Your task to perform on an android device: What's on my calendar tomorrow? Image 0: 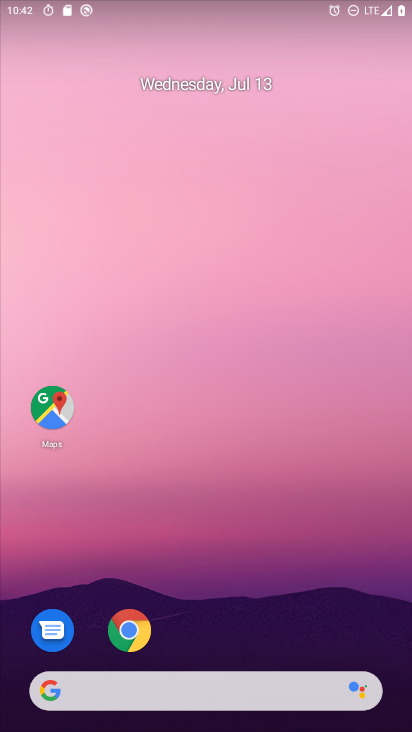
Step 0: drag from (299, 456) to (156, 29)
Your task to perform on an android device: What's on my calendar tomorrow? Image 1: 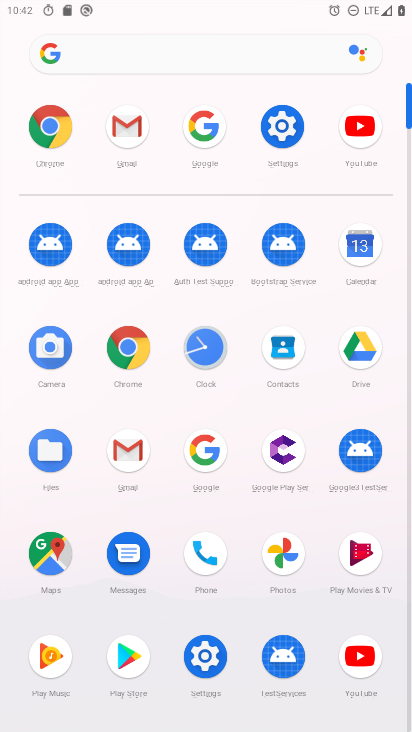
Step 1: click (196, 659)
Your task to perform on an android device: What's on my calendar tomorrow? Image 2: 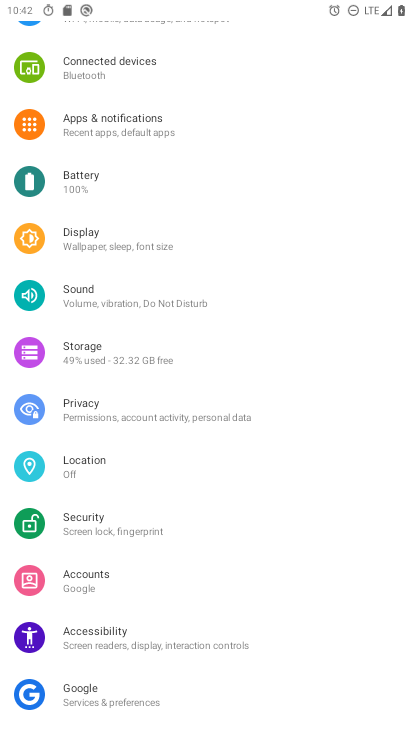
Step 2: press home button
Your task to perform on an android device: What's on my calendar tomorrow? Image 3: 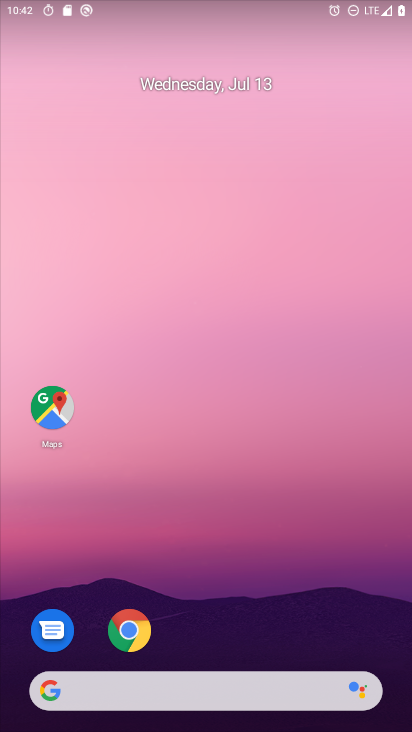
Step 3: drag from (393, 648) to (265, 123)
Your task to perform on an android device: What's on my calendar tomorrow? Image 4: 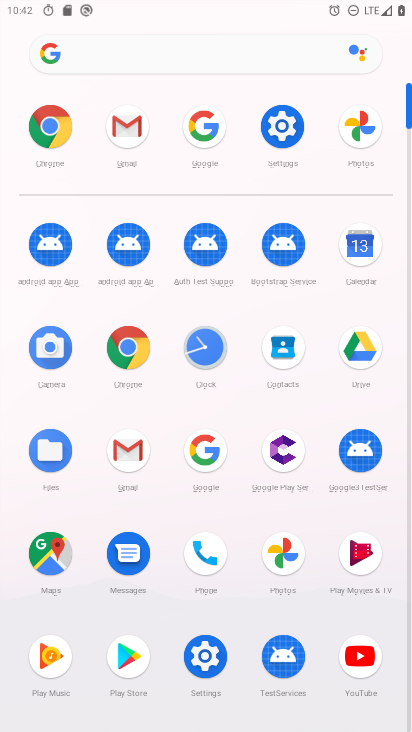
Step 4: click (348, 244)
Your task to perform on an android device: What's on my calendar tomorrow? Image 5: 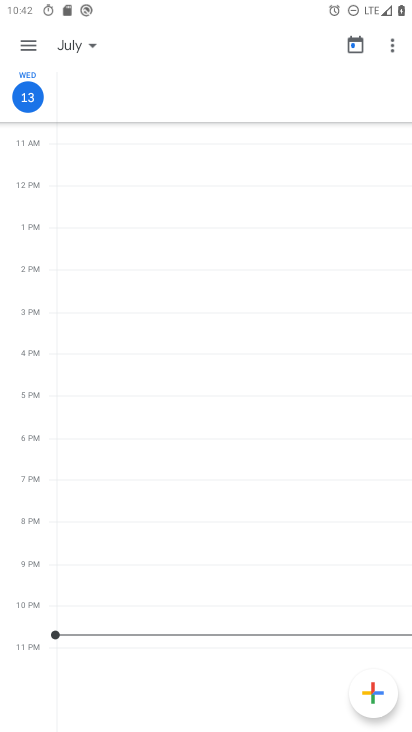
Step 5: click (72, 42)
Your task to perform on an android device: What's on my calendar tomorrow? Image 6: 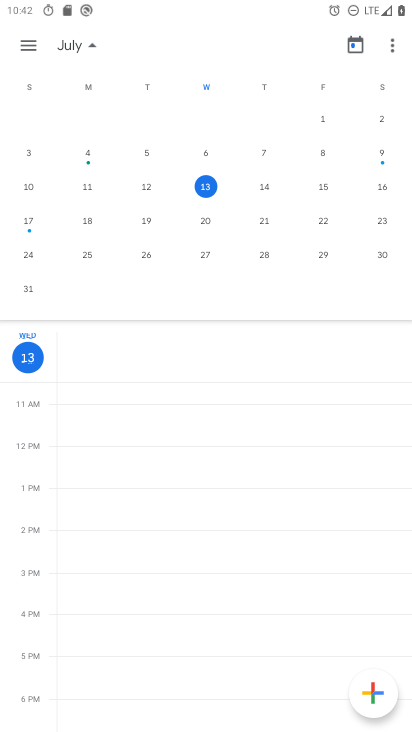
Step 6: click (323, 190)
Your task to perform on an android device: What's on my calendar tomorrow? Image 7: 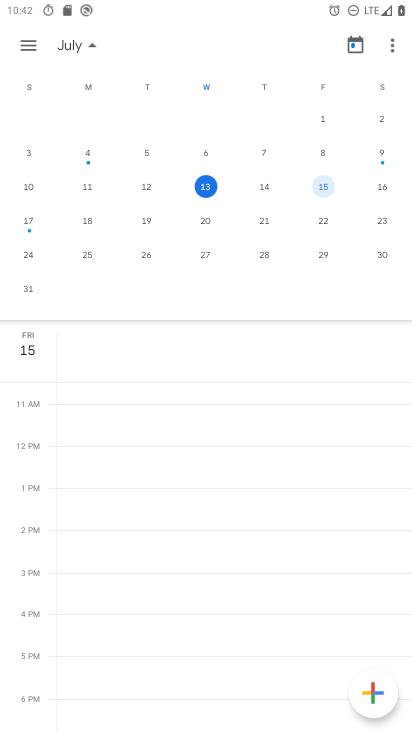
Step 7: task complete